Your task to perform on an android device: Check the weather Image 0: 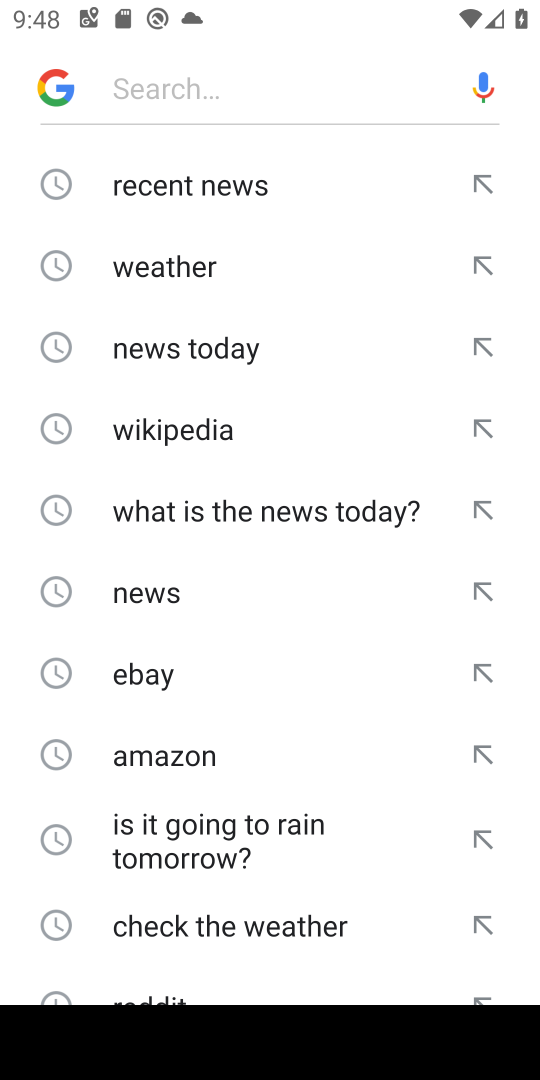
Step 0: click (171, 268)
Your task to perform on an android device: Check the weather Image 1: 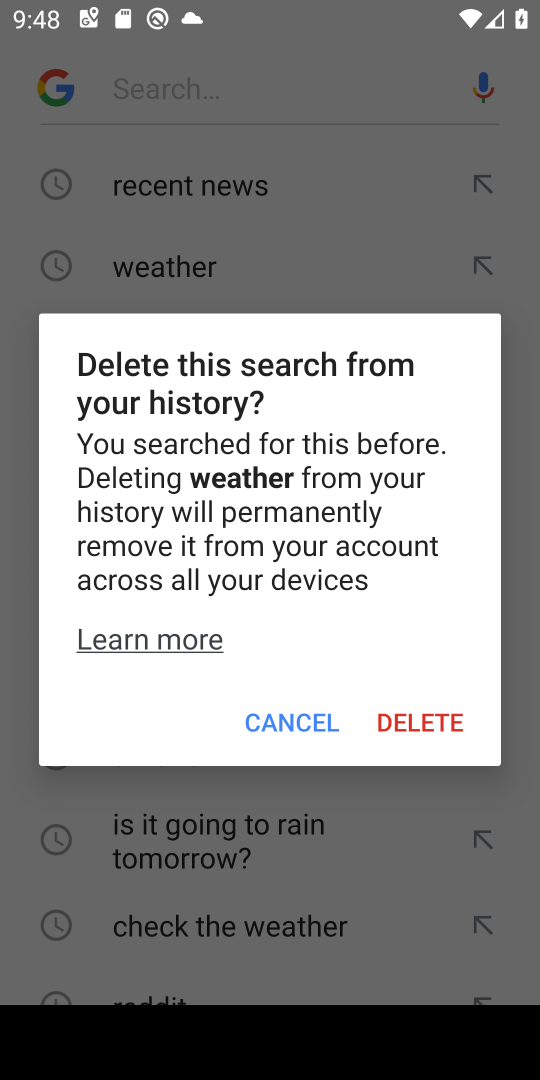
Step 1: click (310, 717)
Your task to perform on an android device: Check the weather Image 2: 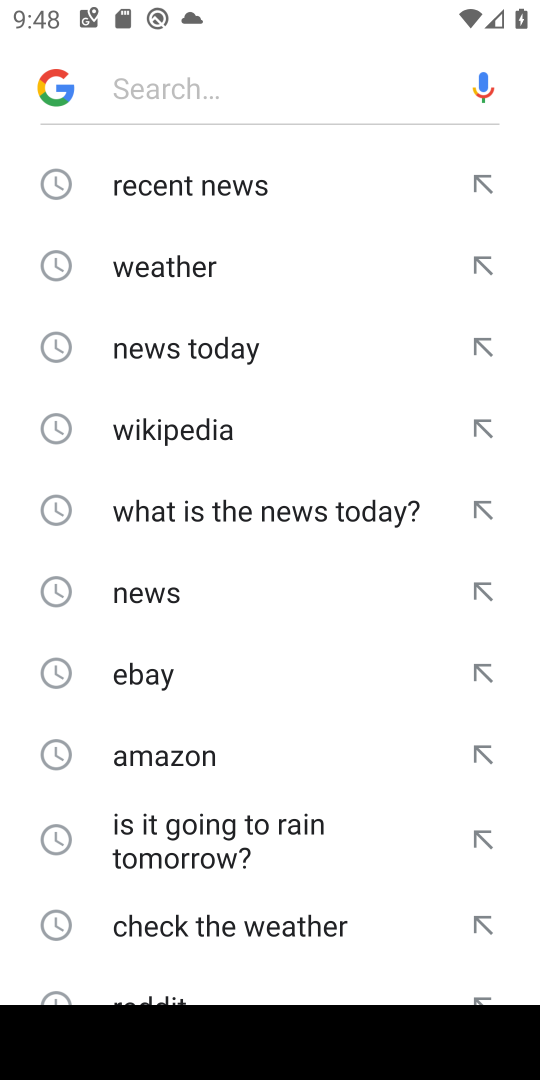
Step 2: click (364, 264)
Your task to perform on an android device: Check the weather Image 3: 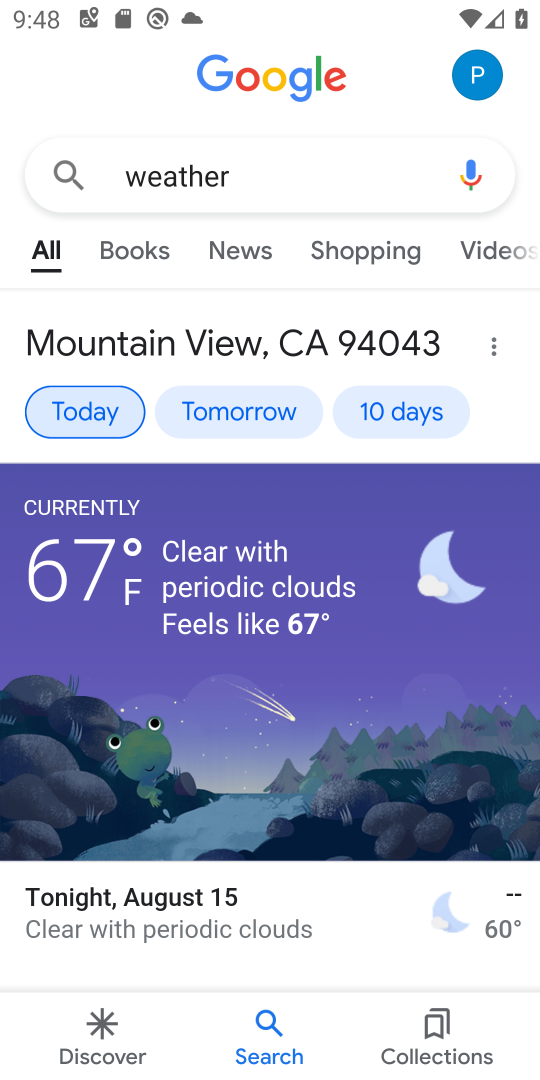
Step 3: click (119, 399)
Your task to perform on an android device: Check the weather Image 4: 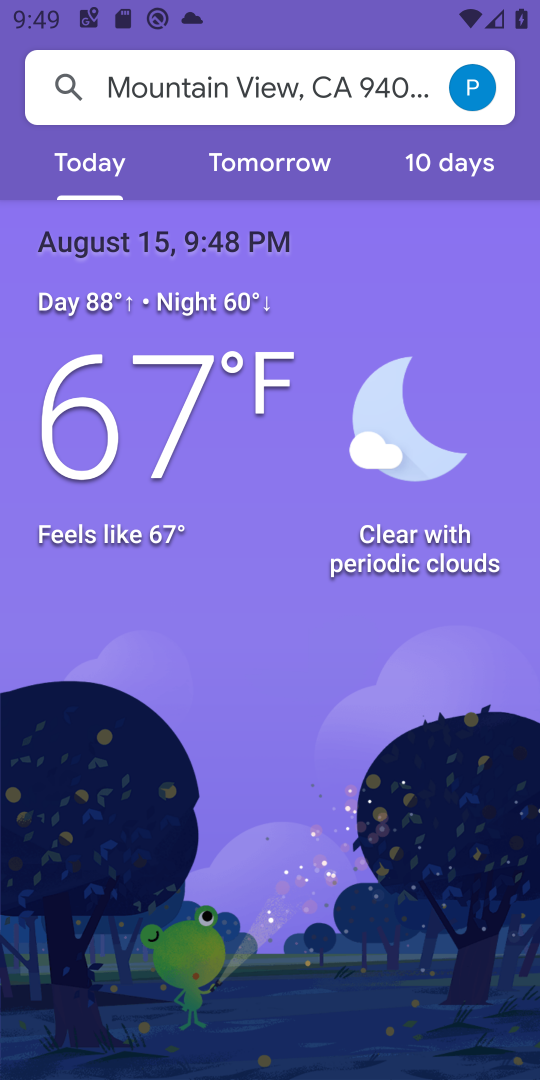
Step 4: task complete